Your task to perform on an android device: Open Youtube and go to "Your channel" Image 0: 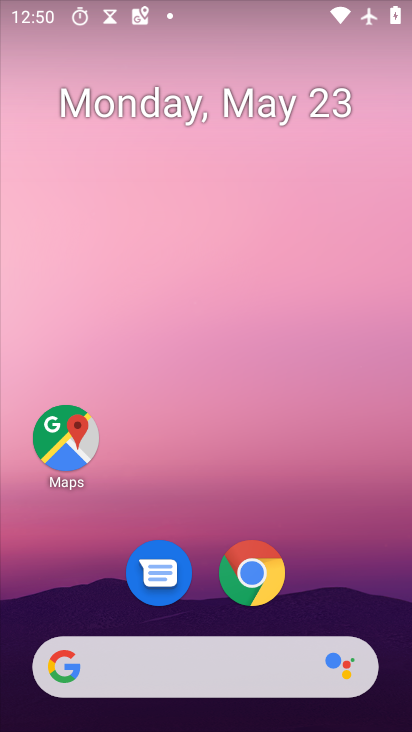
Step 0: drag from (169, 660) to (346, 105)
Your task to perform on an android device: Open Youtube and go to "Your channel" Image 1: 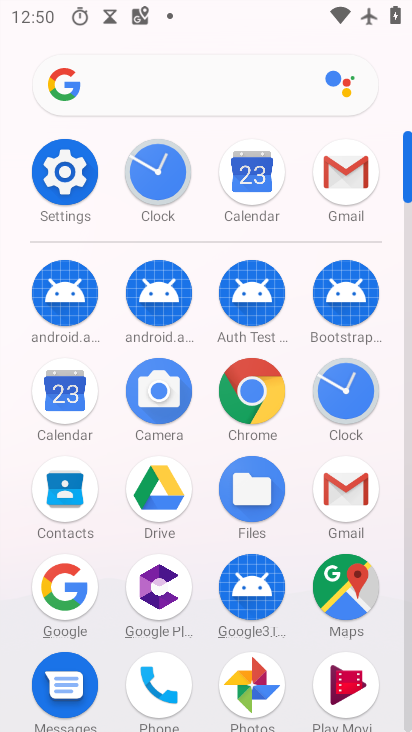
Step 1: drag from (202, 675) to (338, 229)
Your task to perform on an android device: Open Youtube and go to "Your channel" Image 2: 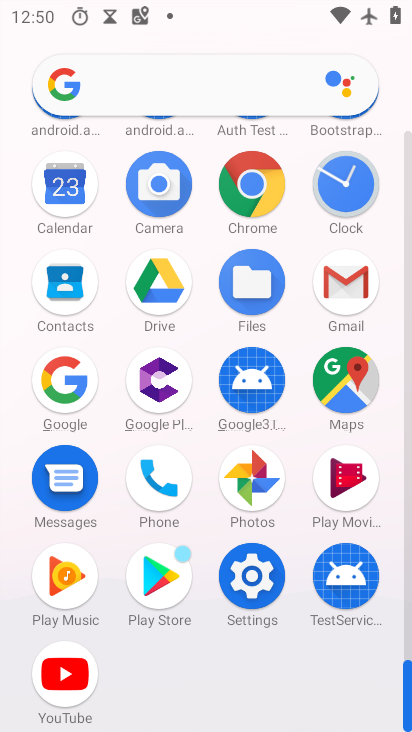
Step 2: click (73, 673)
Your task to perform on an android device: Open Youtube and go to "Your channel" Image 3: 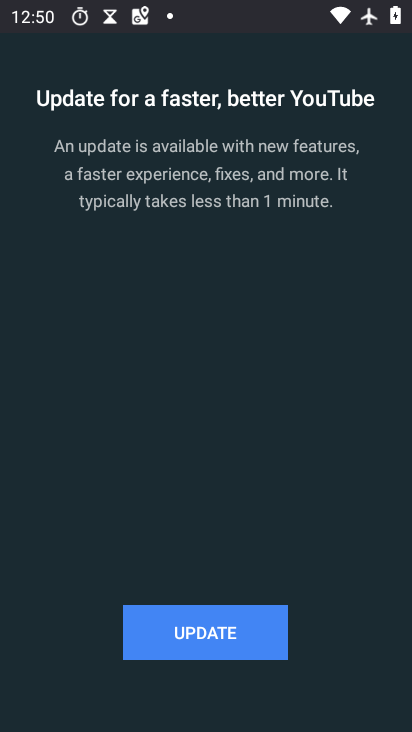
Step 3: click (162, 630)
Your task to perform on an android device: Open Youtube and go to "Your channel" Image 4: 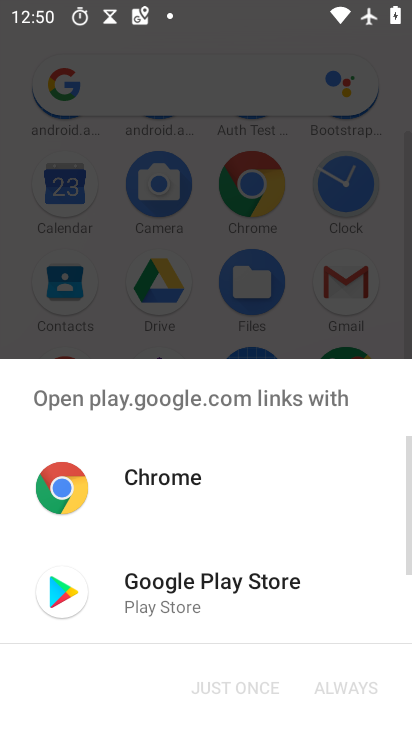
Step 4: click (159, 588)
Your task to perform on an android device: Open Youtube and go to "Your channel" Image 5: 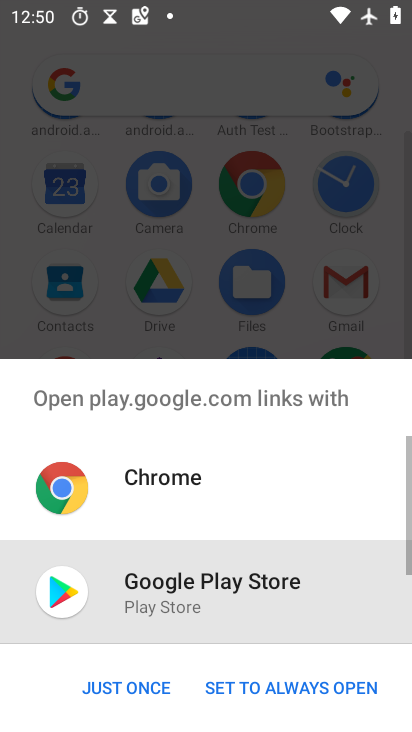
Step 5: click (126, 689)
Your task to perform on an android device: Open Youtube and go to "Your channel" Image 6: 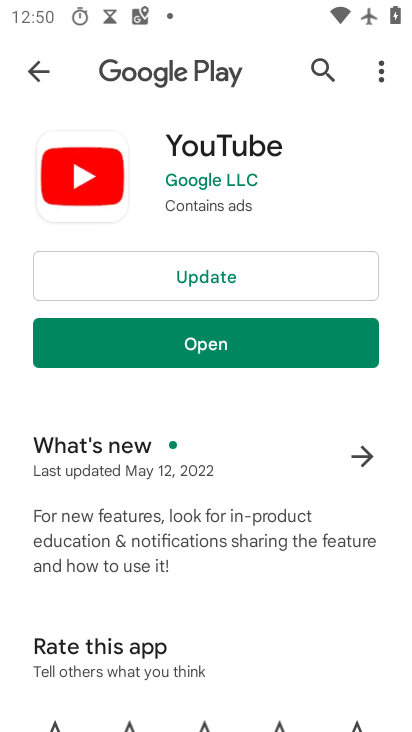
Step 6: click (191, 269)
Your task to perform on an android device: Open Youtube and go to "Your channel" Image 7: 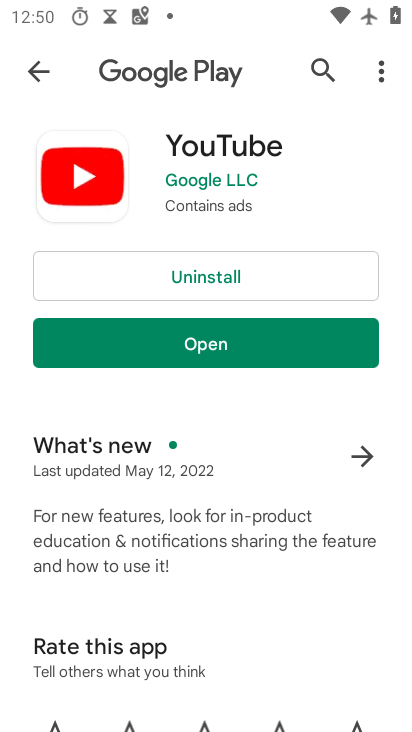
Step 7: click (207, 351)
Your task to perform on an android device: Open Youtube and go to "Your channel" Image 8: 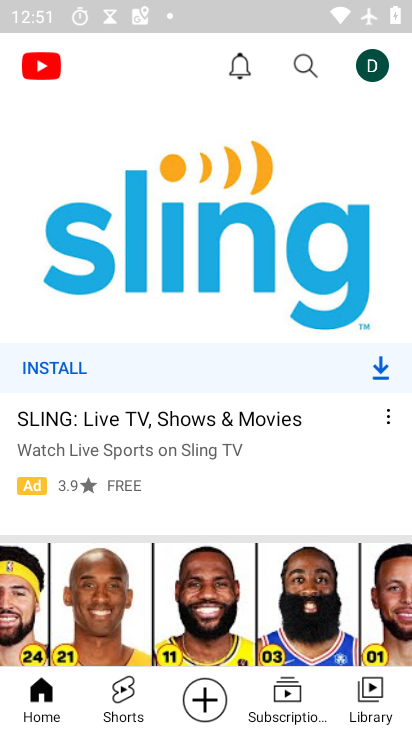
Step 8: click (376, 73)
Your task to perform on an android device: Open Youtube and go to "Your channel" Image 9: 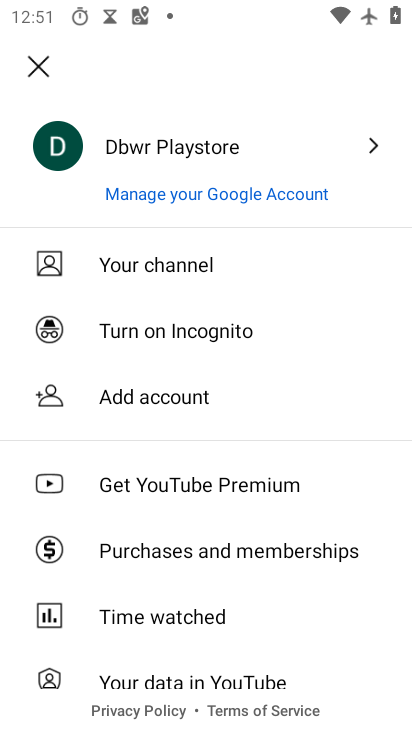
Step 9: click (166, 263)
Your task to perform on an android device: Open Youtube and go to "Your channel" Image 10: 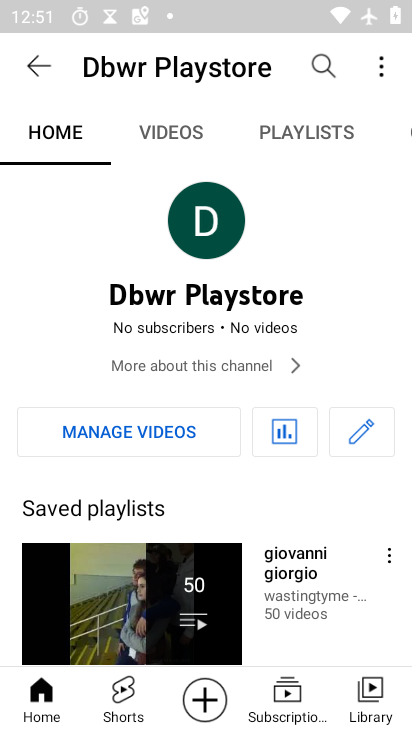
Step 10: task complete